Your task to perform on an android device: empty trash in the gmail app Image 0: 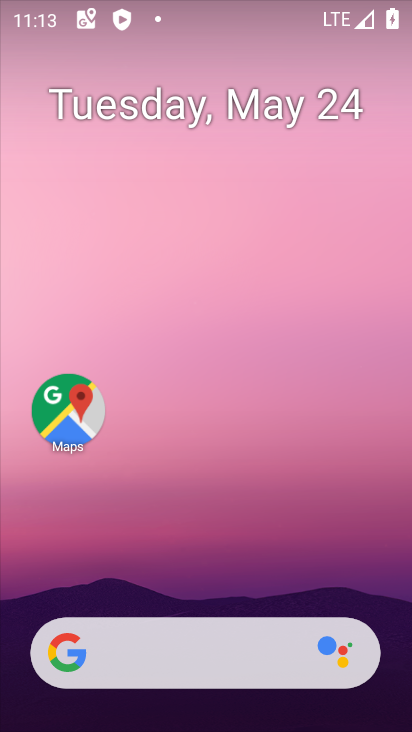
Step 0: drag from (203, 635) to (166, 1)
Your task to perform on an android device: empty trash in the gmail app Image 1: 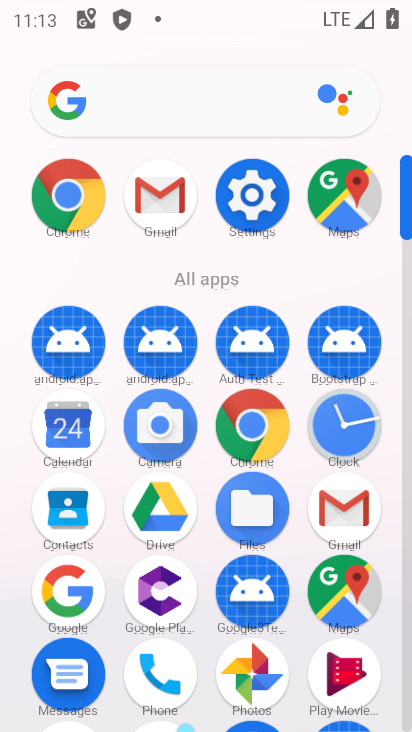
Step 1: click (165, 218)
Your task to perform on an android device: empty trash in the gmail app Image 2: 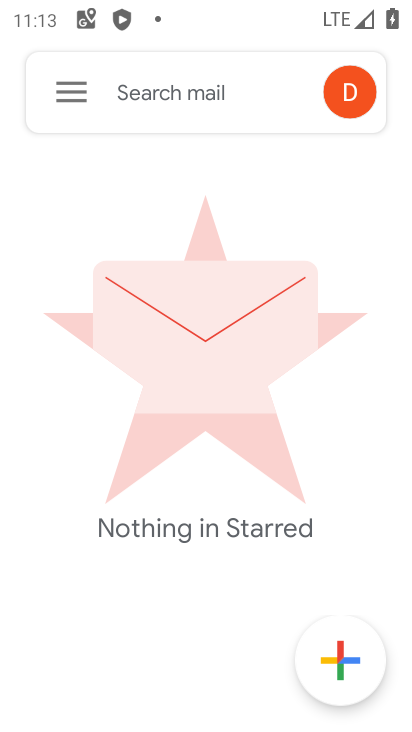
Step 2: click (69, 89)
Your task to perform on an android device: empty trash in the gmail app Image 3: 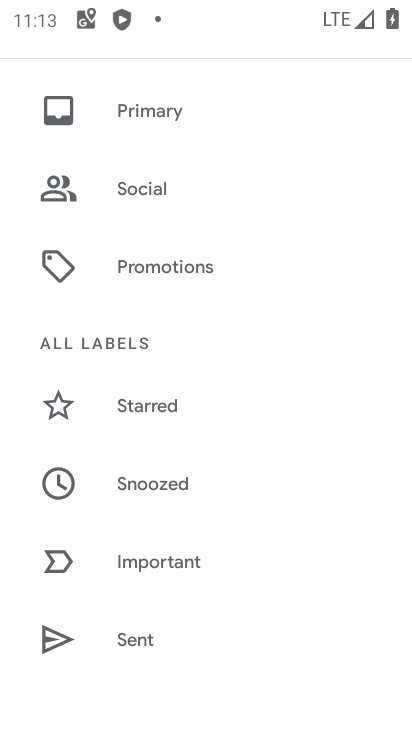
Step 3: drag from (149, 635) to (125, 154)
Your task to perform on an android device: empty trash in the gmail app Image 4: 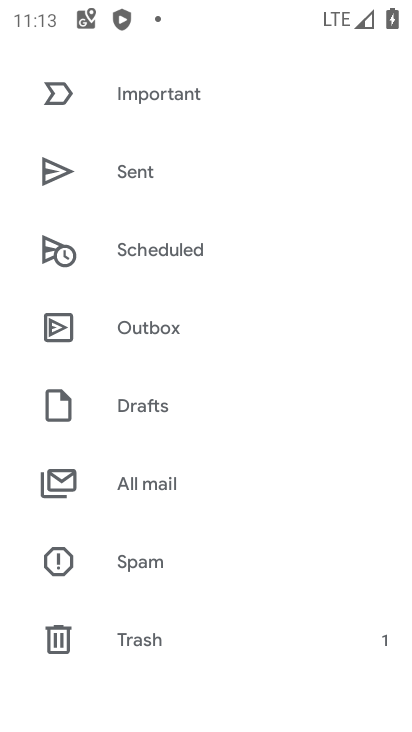
Step 4: click (135, 633)
Your task to perform on an android device: empty trash in the gmail app Image 5: 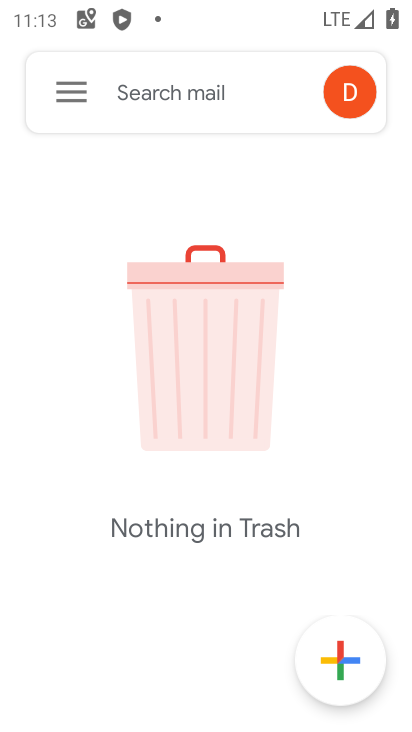
Step 5: task complete